Your task to perform on an android device: turn on airplane mode Image 0: 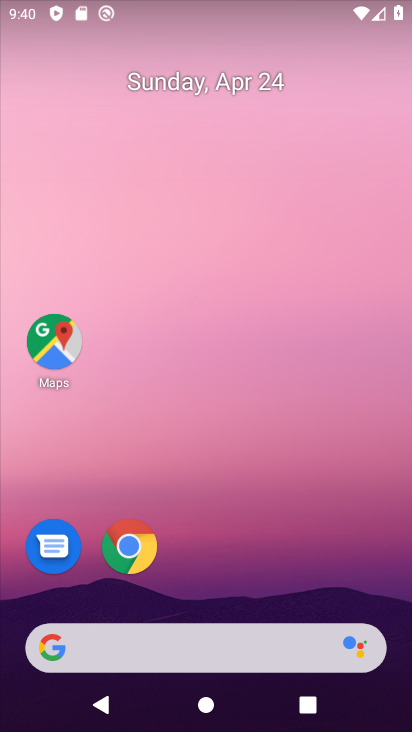
Step 0: drag from (235, 608) to (157, 31)
Your task to perform on an android device: turn on airplane mode Image 1: 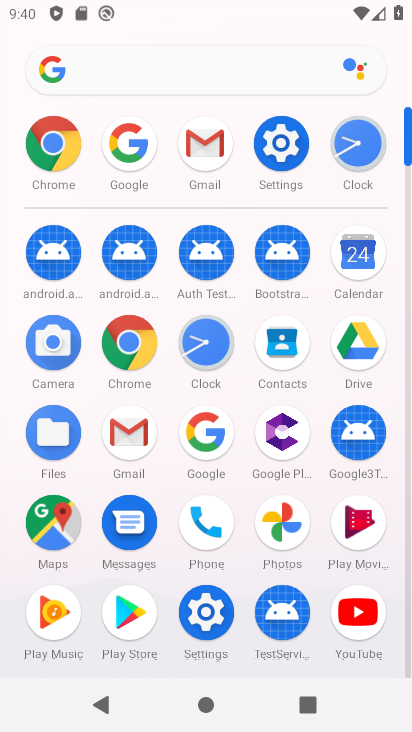
Step 1: click (277, 145)
Your task to perform on an android device: turn on airplane mode Image 2: 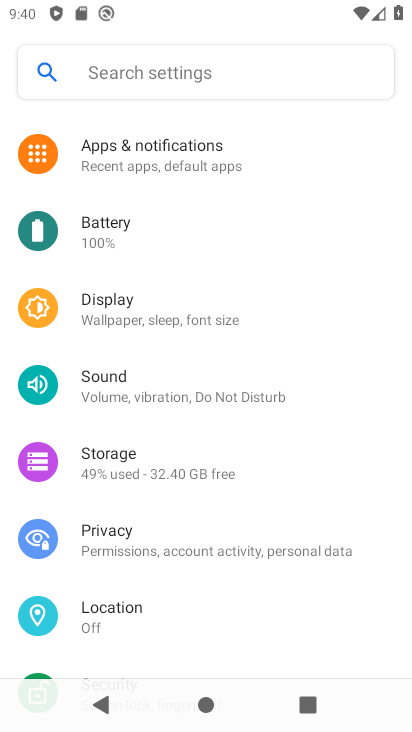
Step 2: drag from (279, 265) to (204, 676)
Your task to perform on an android device: turn on airplane mode Image 3: 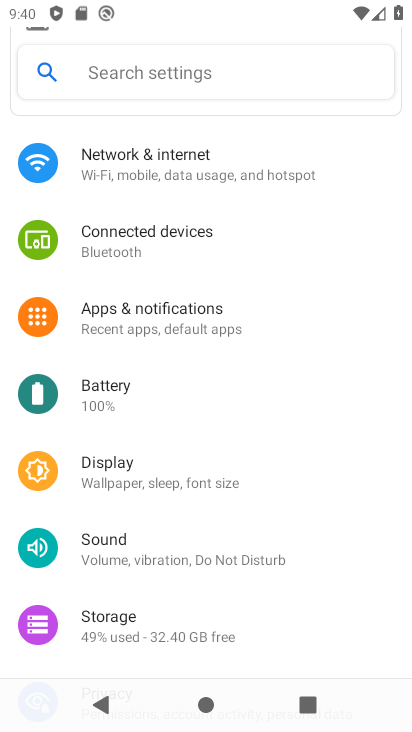
Step 3: click (241, 187)
Your task to perform on an android device: turn on airplane mode Image 4: 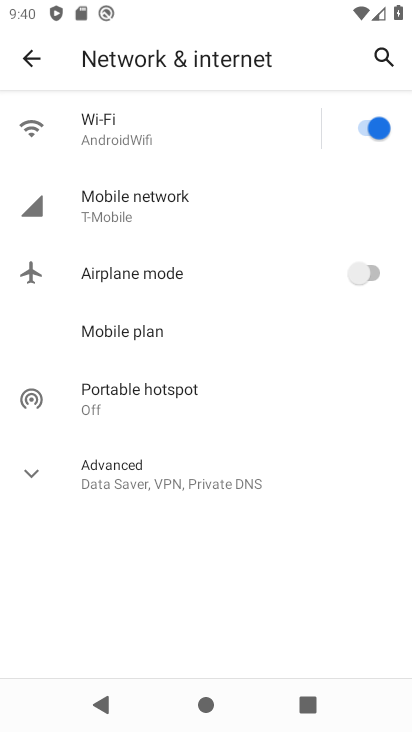
Step 4: click (369, 275)
Your task to perform on an android device: turn on airplane mode Image 5: 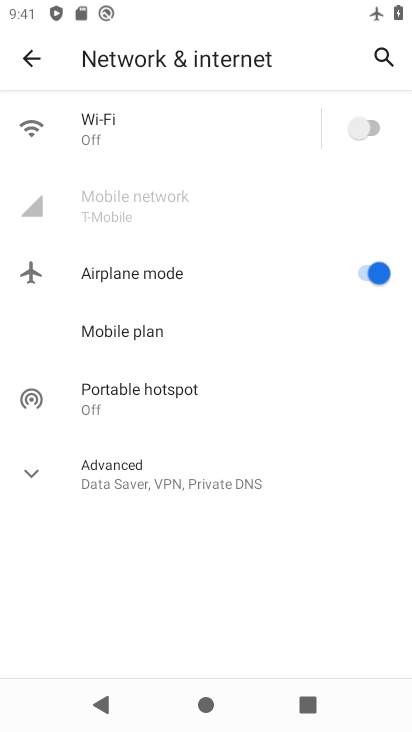
Step 5: task complete